Your task to perform on an android device: Open eBay Image 0: 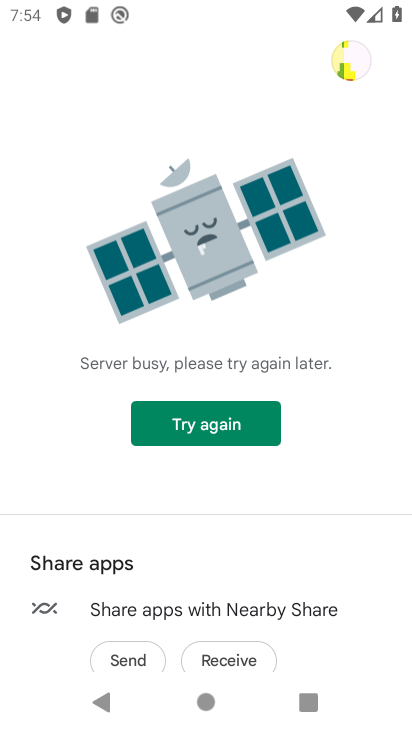
Step 0: press back button
Your task to perform on an android device: Open eBay Image 1: 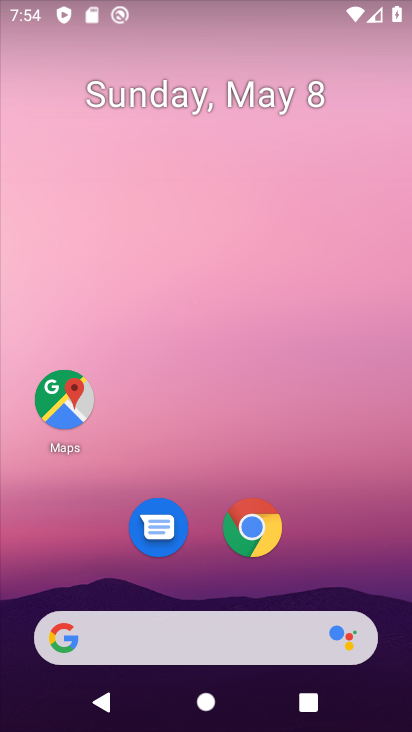
Step 1: click (249, 530)
Your task to perform on an android device: Open eBay Image 2: 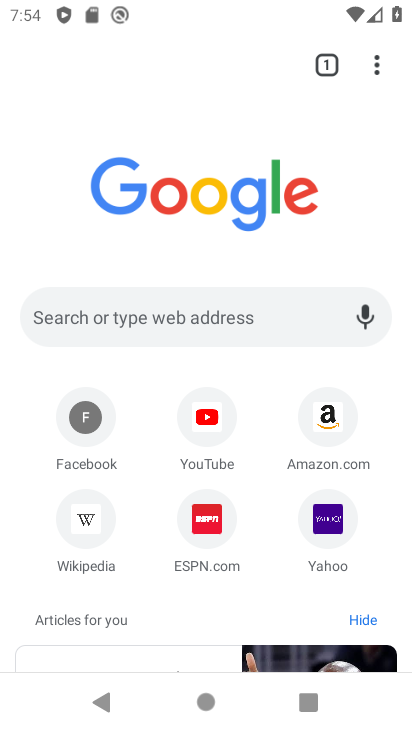
Step 2: click (268, 330)
Your task to perform on an android device: Open eBay Image 3: 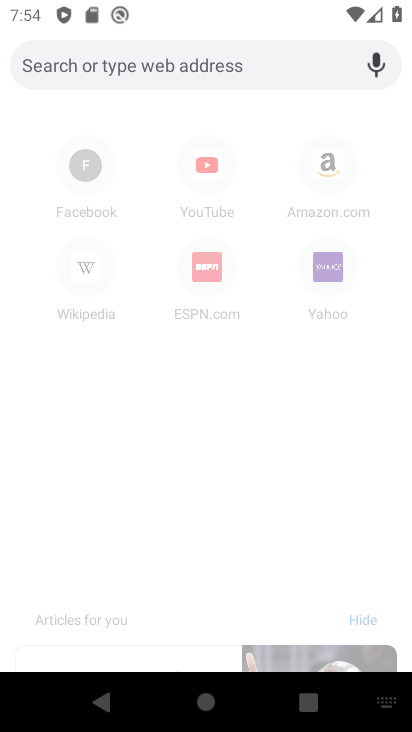
Step 3: type "eBay"
Your task to perform on an android device: Open eBay Image 4: 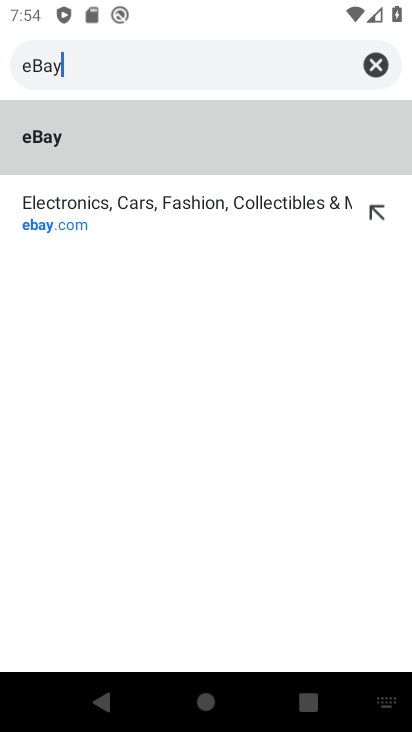
Step 4: type ""
Your task to perform on an android device: Open eBay Image 5: 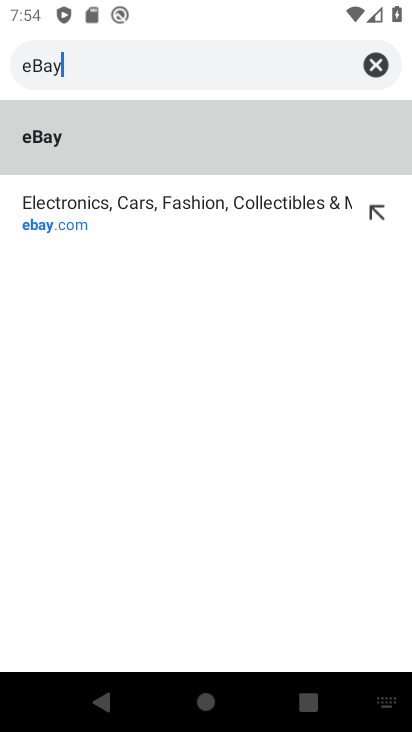
Step 5: click (175, 141)
Your task to perform on an android device: Open eBay Image 6: 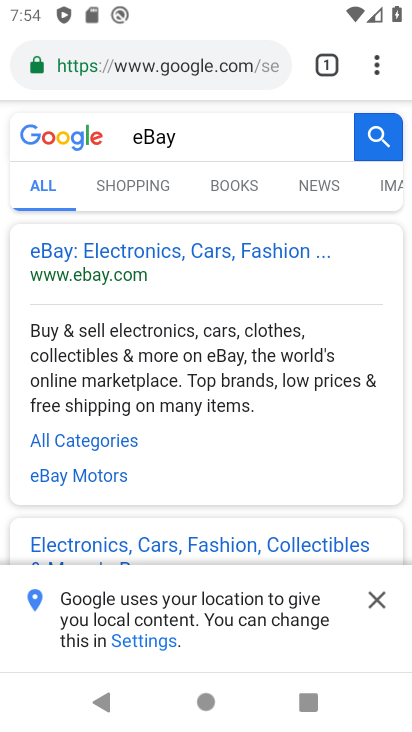
Step 6: click (80, 253)
Your task to perform on an android device: Open eBay Image 7: 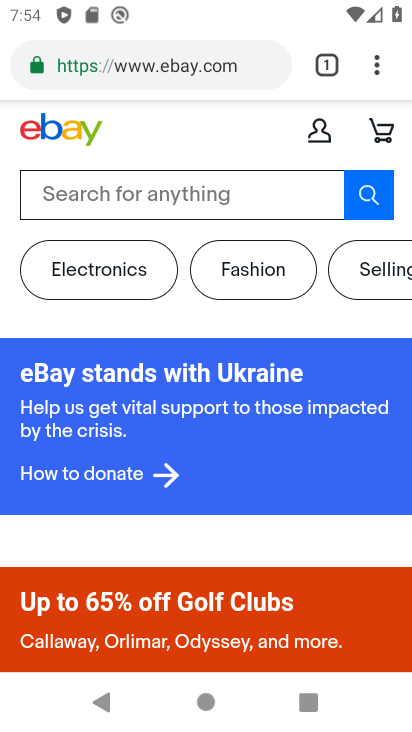
Step 7: task complete